Your task to perform on an android device: Show me the alarms in the clock app Image 0: 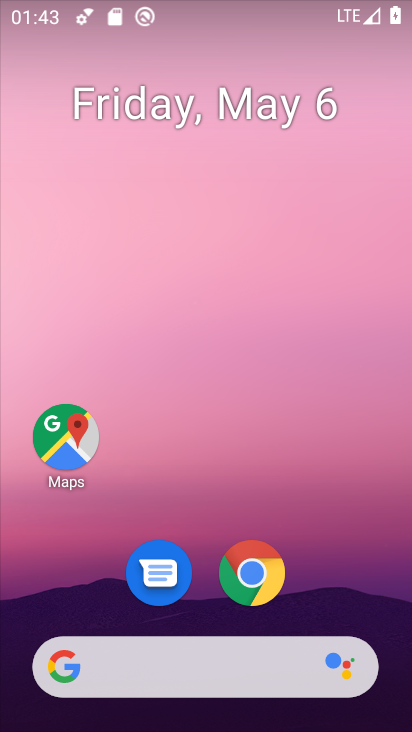
Step 0: drag from (278, 582) to (302, 279)
Your task to perform on an android device: Show me the alarms in the clock app Image 1: 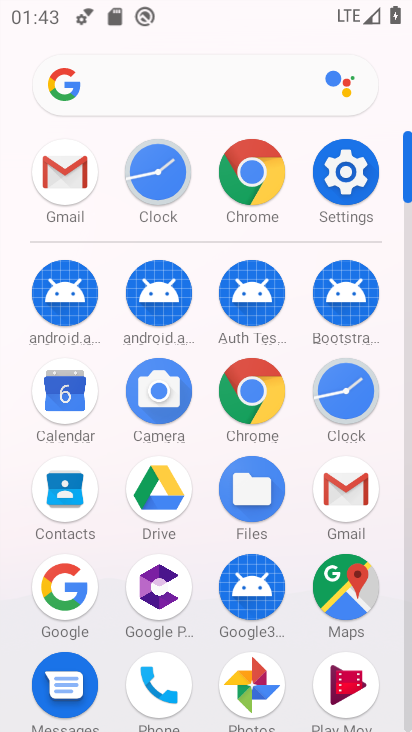
Step 1: click (361, 386)
Your task to perform on an android device: Show me the alarms in the clock app Image 2: 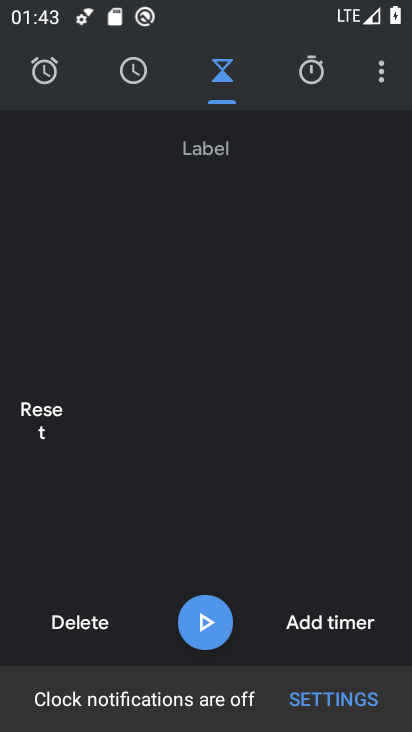
Step 2: click (48, 65)
Your task to perform on an android device: Show me the alarms in the clock app Image 3: 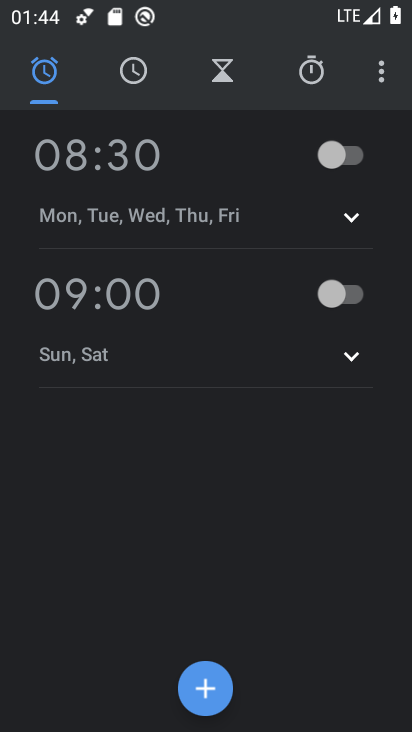
Step 3: task complete